Your task to perform on an android device: change the clock display to analog Image 0: 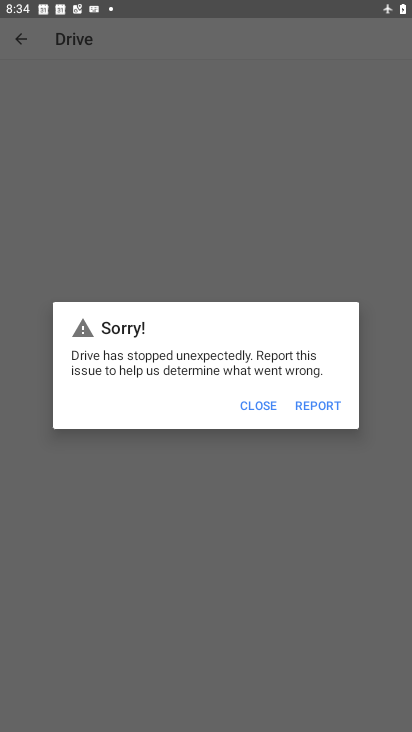
Step 0: press home button
Your task to perform on an android device: change the clock display to analog Image 1: 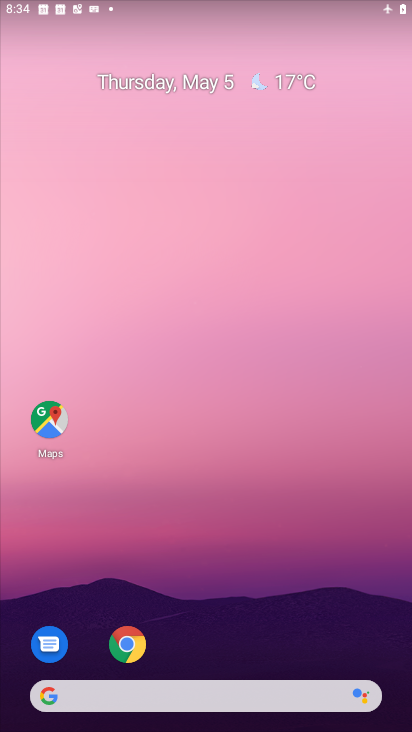
Step 1: drag from (181, 675) to (184, 303)
Your task to perform on an android device: change the clock display to analog Image 2: 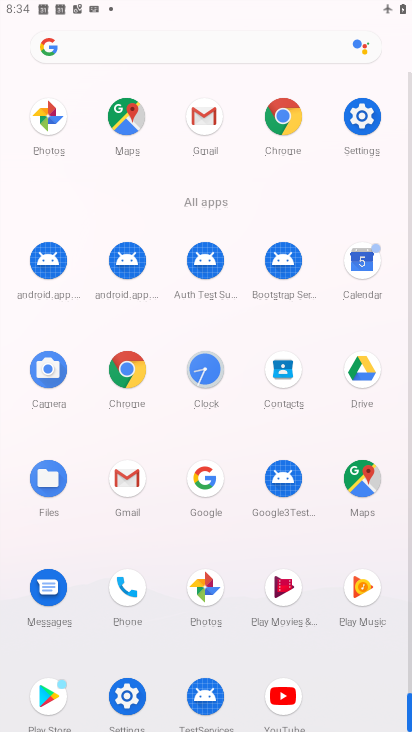
Step 2: click (364, 103)
Your task to perform on an android device: change the clock display to analog Image 3: 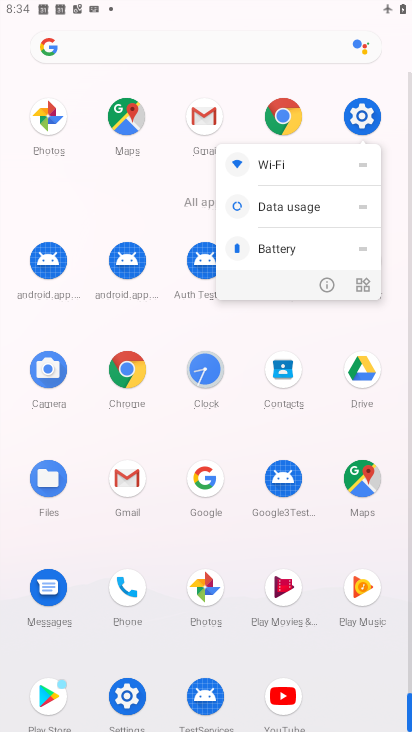
Step 3: click (334, 340)
Your task to perform on an android device: change the clock display to analog Image 4: 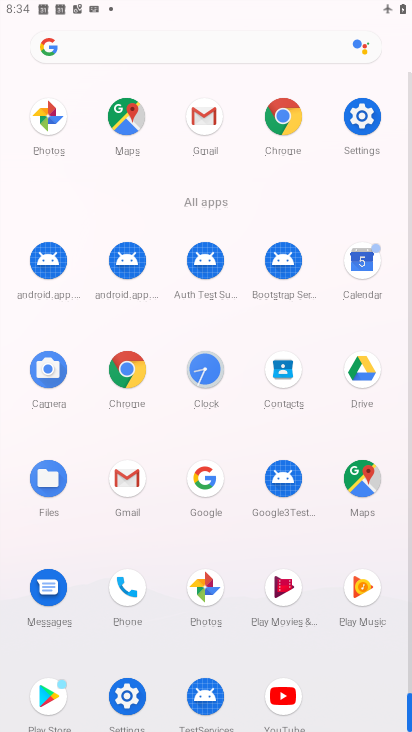
Step 4: click (198, 367)
Your task to perform on an android device: change the clock display to analog Image 5: 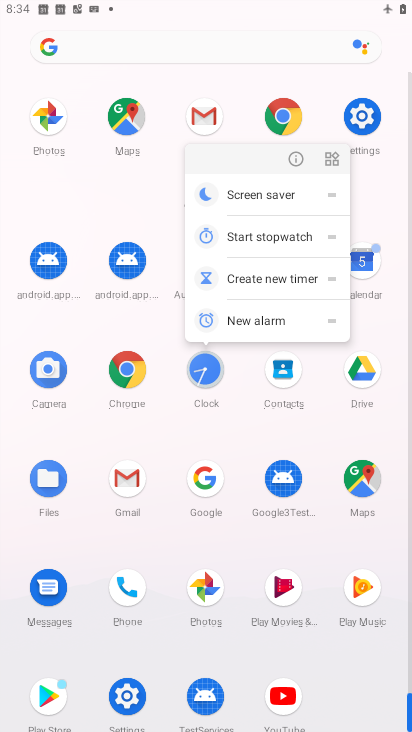
Step 5: click (289, 158)
Your task to perform on an android device: change the clock display to analog Image 6: 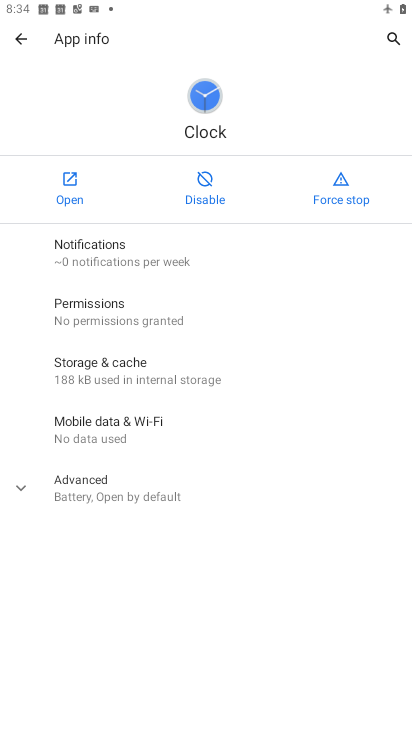
Step 6: click (81, 174)
Your task to perform on an android device: change the clock display to analog Image 7: 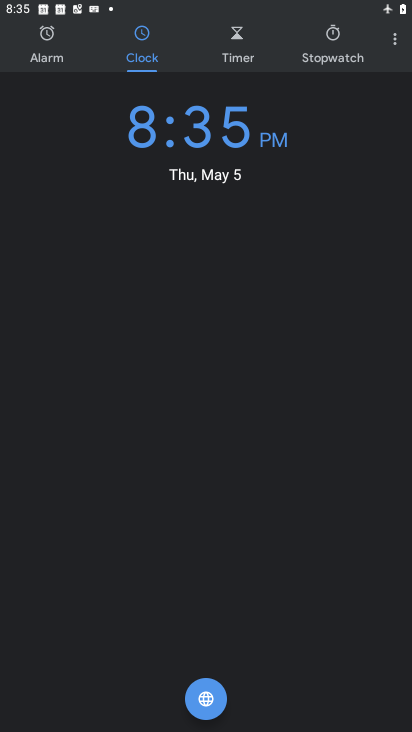
Step 7: click (401, 45)
Your task to perform on an android device: change the clock display to analog Image 8: 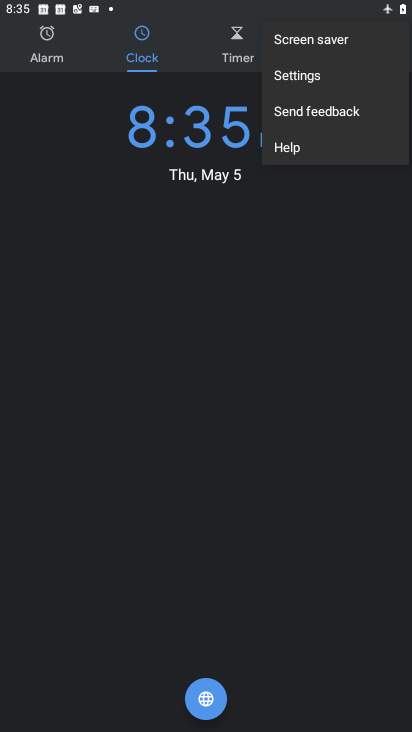
Step 8: click (292, 76)
Your task to perform on an android device: change the clock display to analog Image 9: 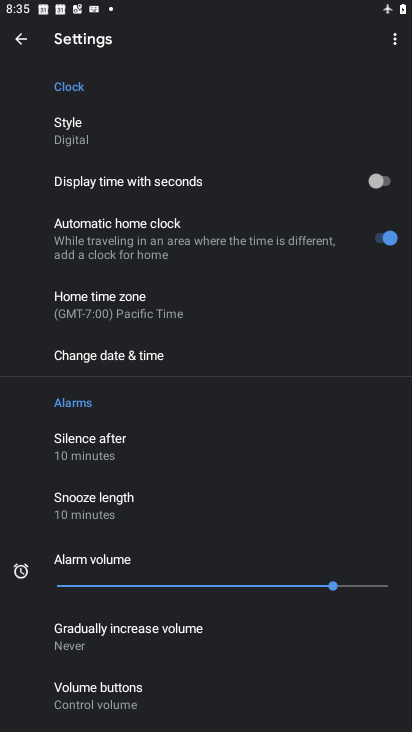
Step 9: click (174, 129)
Your task to perform on an android device: change the clock display to analog Image 10: 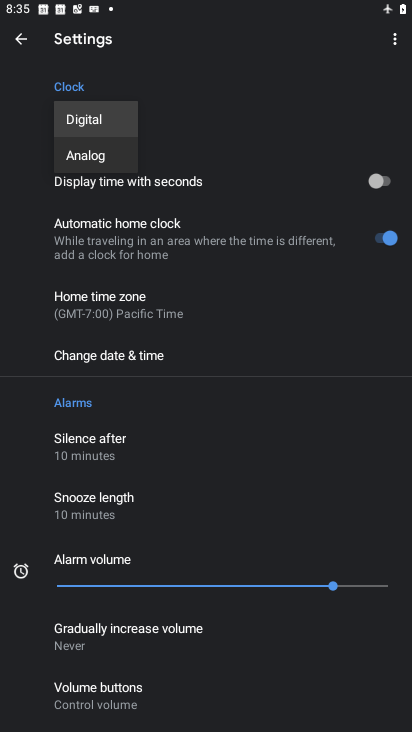
Step 10: click (85, 162)
Your task to perform on an android device: change the clock display to analog Image 11: 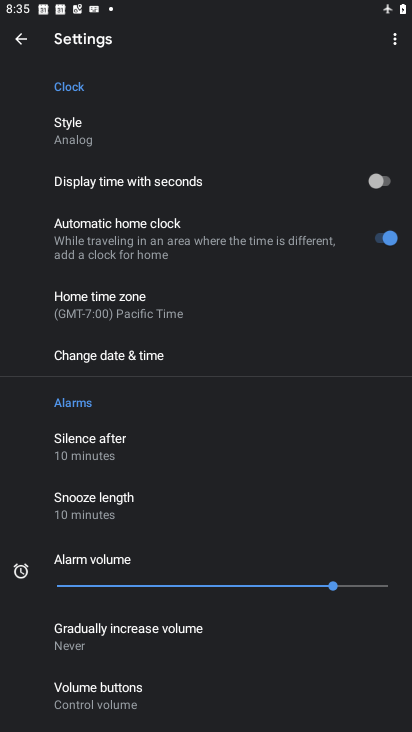
Step 11: task complete